Your task to perform on an android device: Open battery settings Image 0: 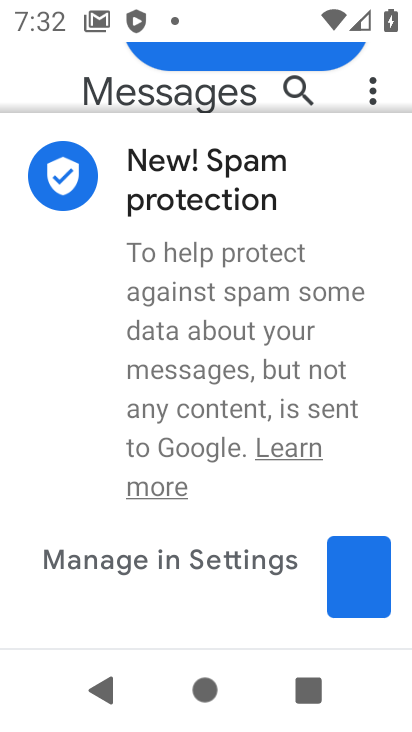
Step 0: press home button
Your task to perform on an android device: Open battery settings Image 1: 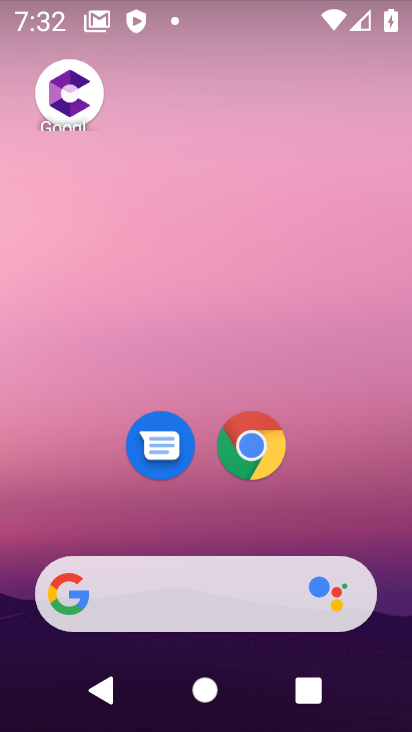
Step 1: drag from (177, 545) to (245, 68)
Your task to perform on an android device: Open battery settings Image 2: 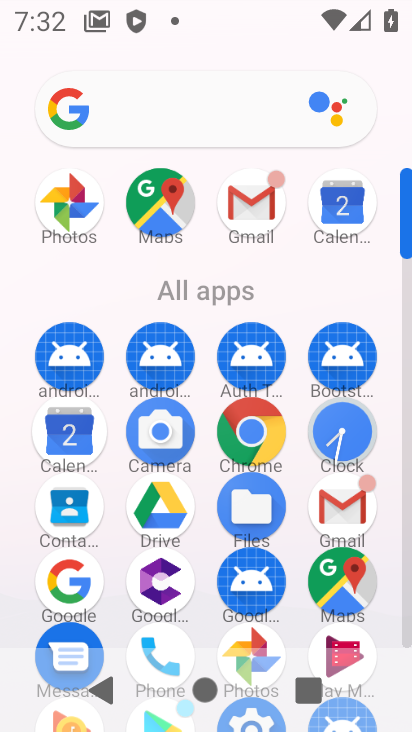
Step 2: drag from (243, 692) to (293, 253)
Your task to perform on an android device: Open battery settings Image 3: 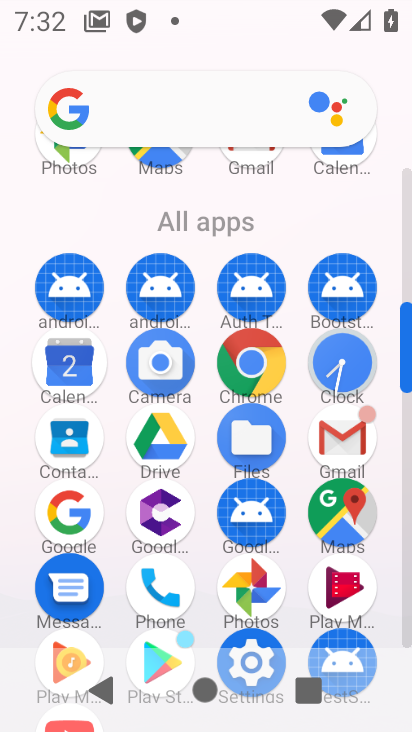
Step 3: drag from (408, 340) to (405, 541)
Your task to perform on an android device: Open battery settings Image 4: 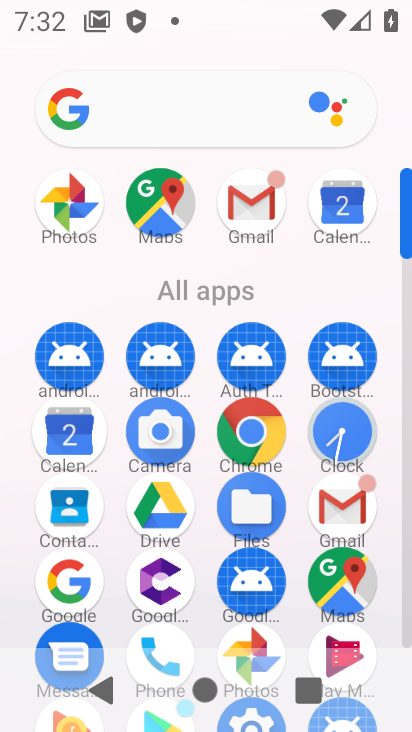
Step 4: drag from (410, 240) to (410, 65)
Your task to perform on an android device: Open battery settings Image 5: 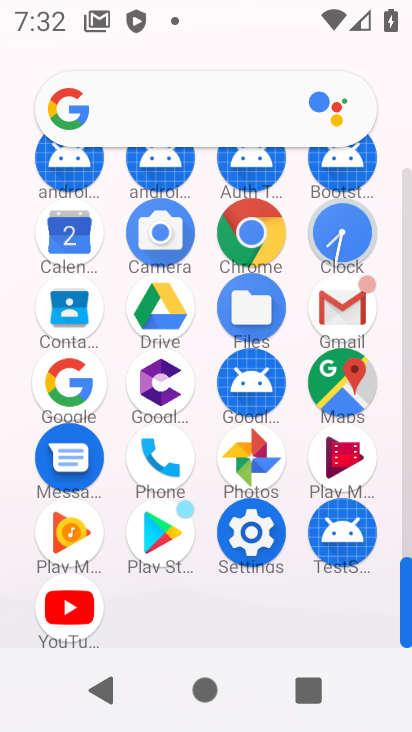
Step 5: click (248, 513)
Your task to perform on an android device: Open battery settings Image 6: 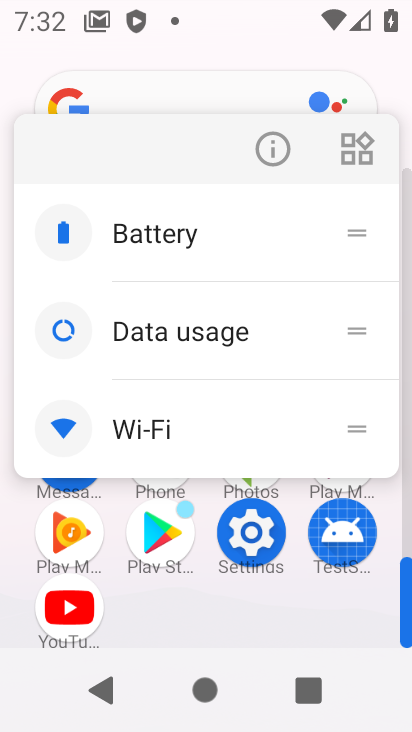
Step 6: click (248, 513)
Your task to perform on an android device: Open battery settings Image 7: 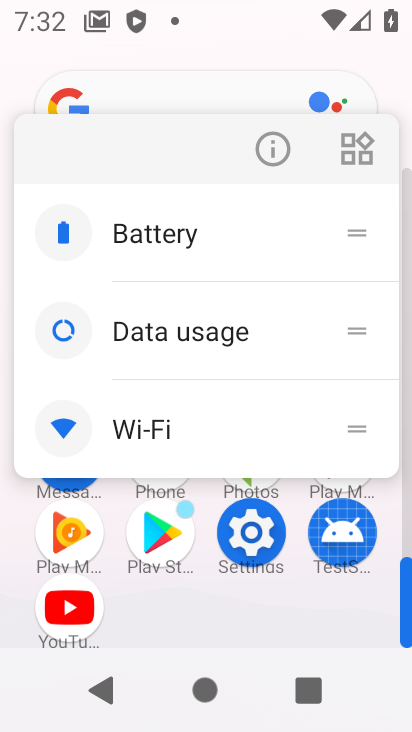
Step 7: click (248, 513)
Your task to perform on an android device: Open battery settings Image 8: 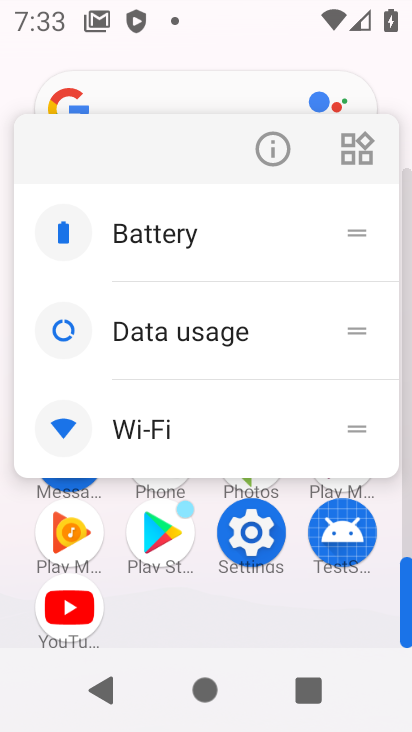
Step 8: click (248, 527)
Your task to perform on an android device: Open battery settings Image 9: 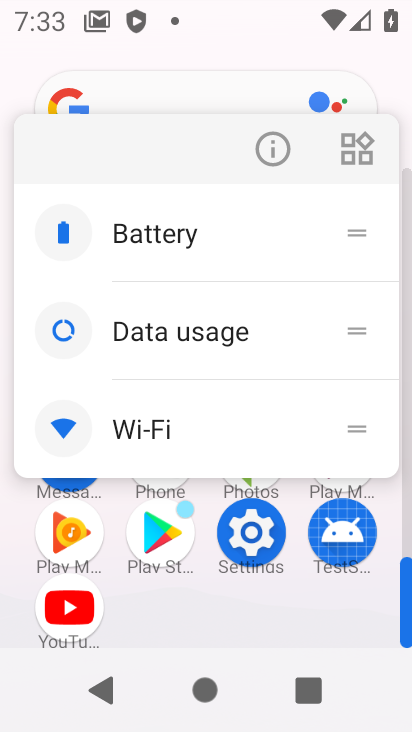
Step 9: click (248, 527)
Your task to perform on an android device: Open battery settings Image 10: 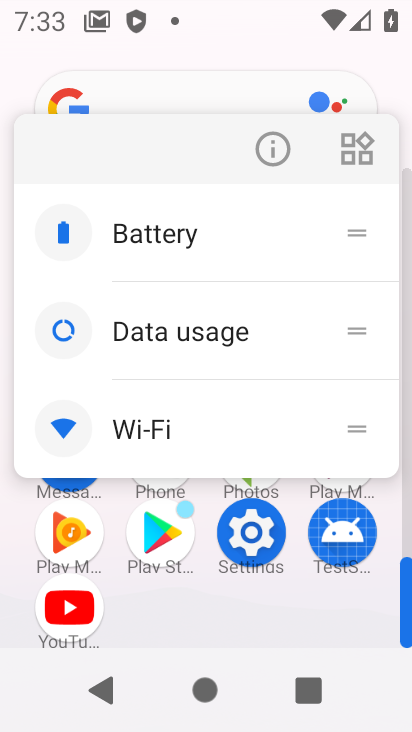
Step 10: click (248, 527)
Your task to perform on an android device: Open battery settings Image 11: 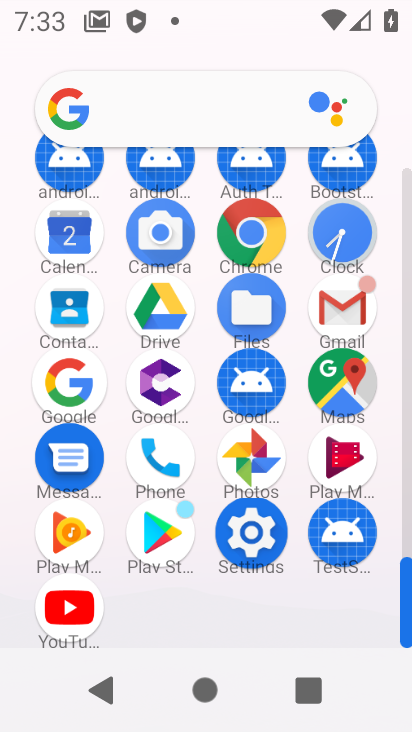
Step 11: click (248, 527)
Your task to perform on an android device: Open battery settings Image 12: 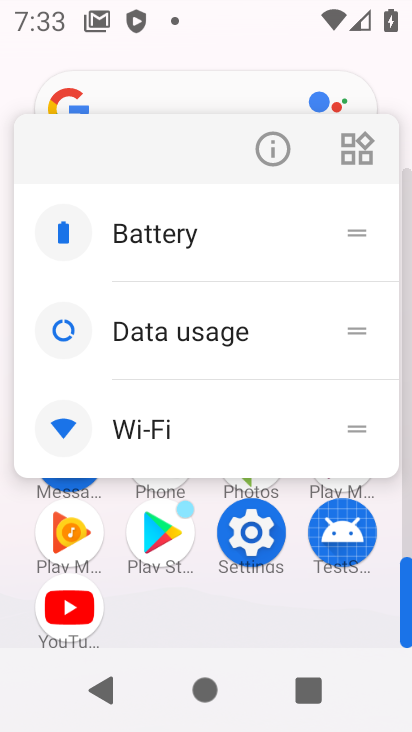
Step 12: click (248, 527)
Your task to perform on an android device: Open battery settings Image 13: 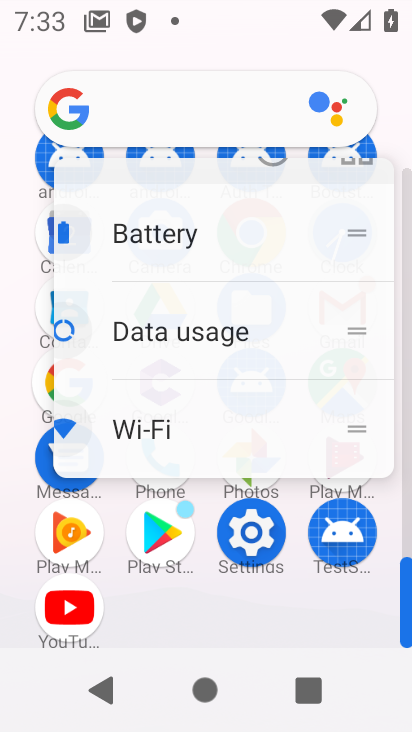
Step 13: click (248, 527)
Your task to perform on an android device: Open battery settings Image 14: 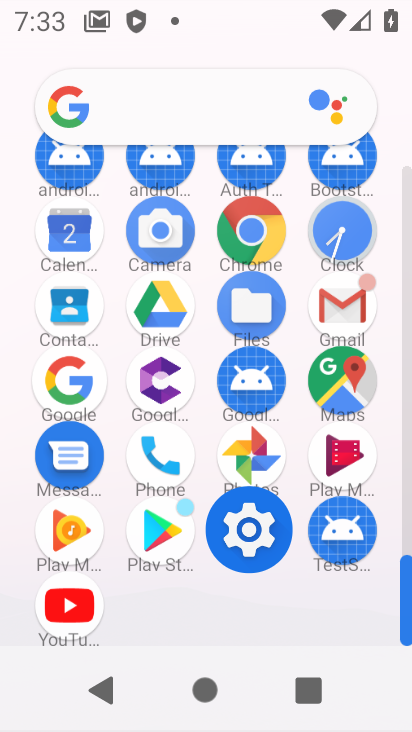
Step 14: click (248, 527)
Your task to perform on an android device: Open battery settings Image 15: 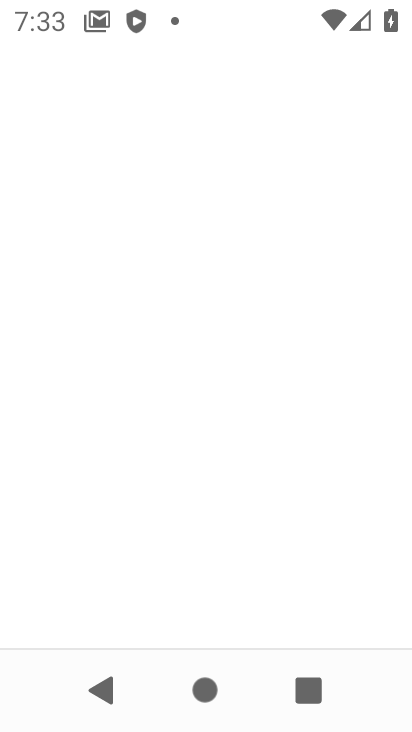
Step 15: click (248, 527)
Your task to perform on an android device: Open battery settings Image 16: 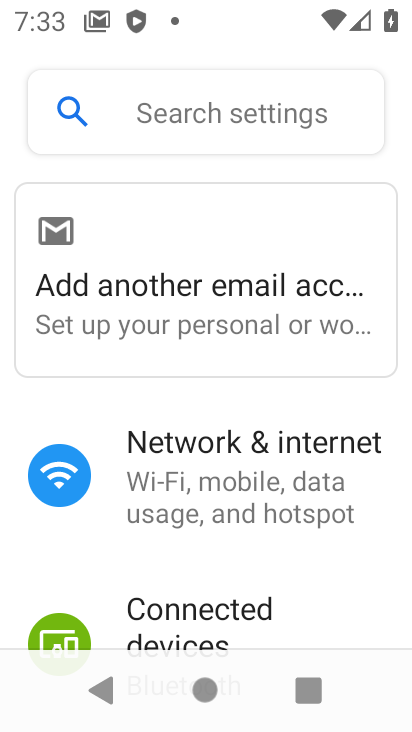
Step 16: drag from (231, 554) to (400, 62)
Your task to perform on an android device: Open battery settings Image 17: 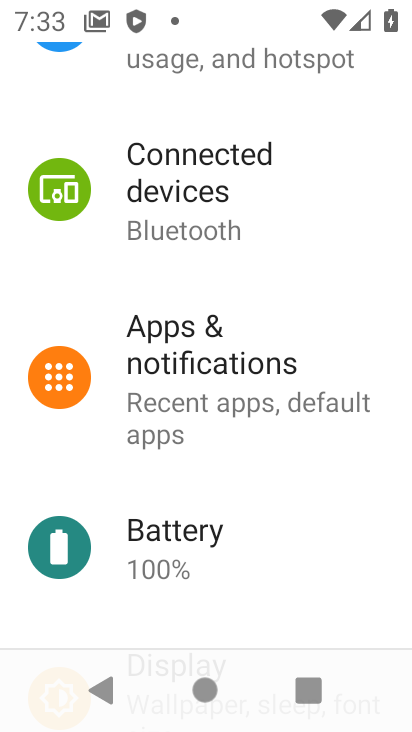
Step 17: click (142, 532)
Your task to perform on an android device: Open battery settings Image 18: 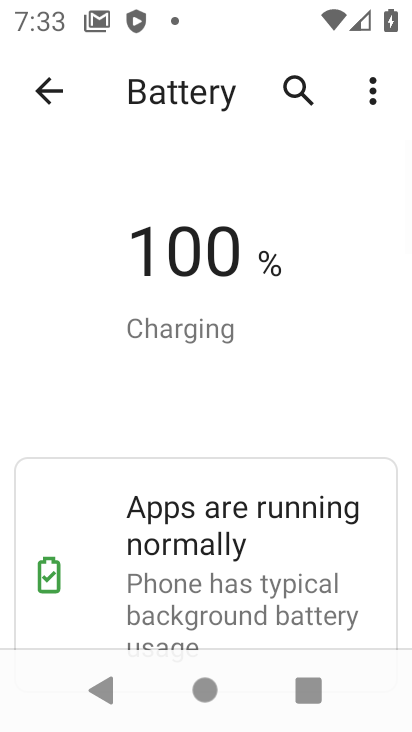
Step 18: task complete